Your task to perform on an android device: set an alarm Image 0: 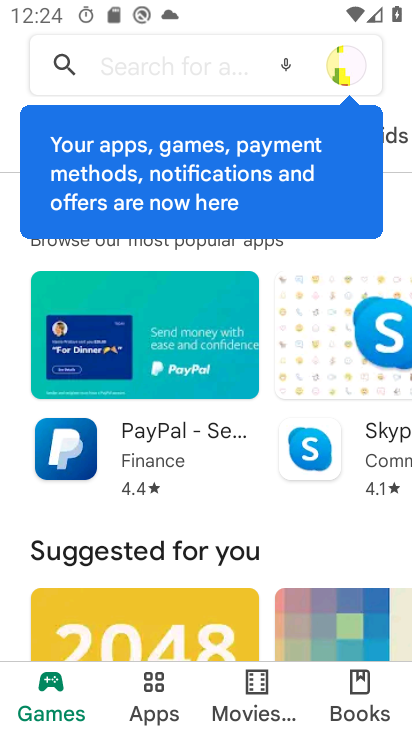
Step 0: press home button
Your task to perform on an android device: set an alarm Image 1: 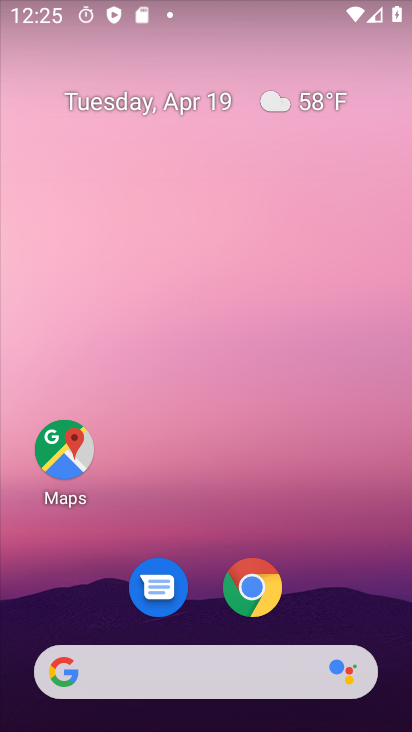
Step 1: drag from (367, 579) to (360, 110)
Your task to perform on an android device: set an alarm Image 2: 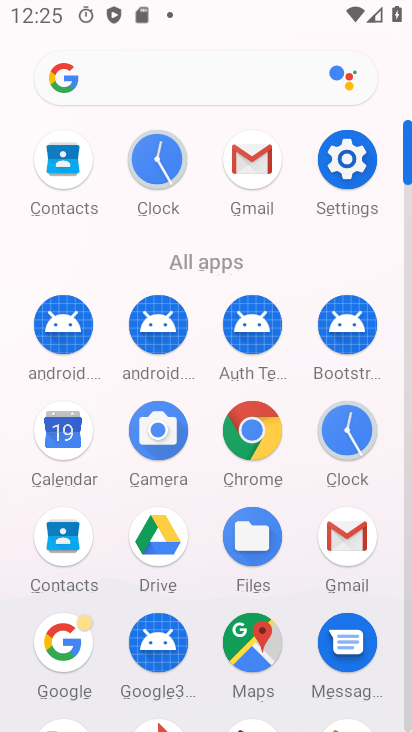
Step 2: click (349, 443)
Your task to perform on an android device: set an alarm Image 3: 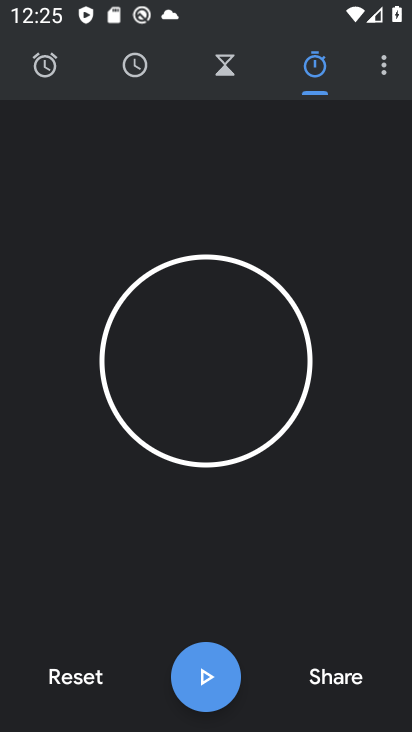
Step 3: click (50, 68)
Your task to perform on an android device: set an alarm Image 4: 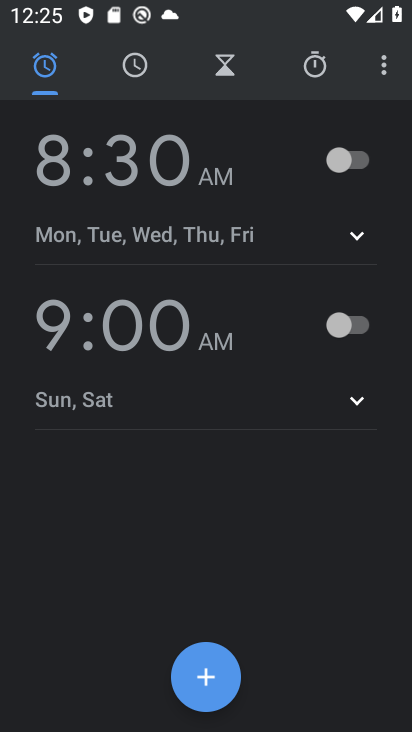
Step 4: click (214, 671)
Your task to perform on an android device: set an alarm Image 5: 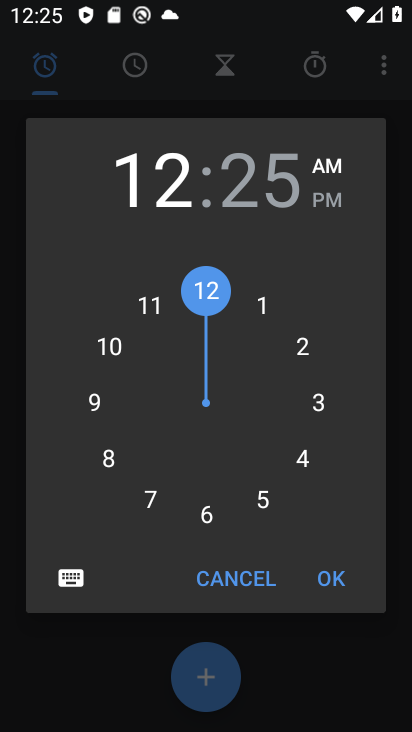
Step 5: click (327, 580)
Your task to perform on an android device: set an alarm Image 6: 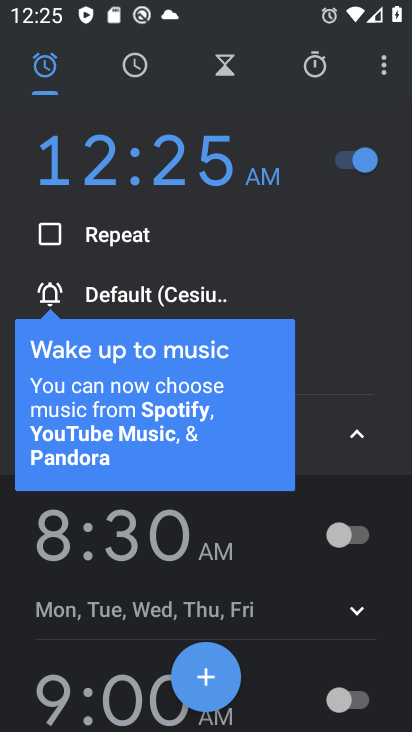
Step 6: task complete